Your task to perform on an android device: Open ESPN.com Image 0: 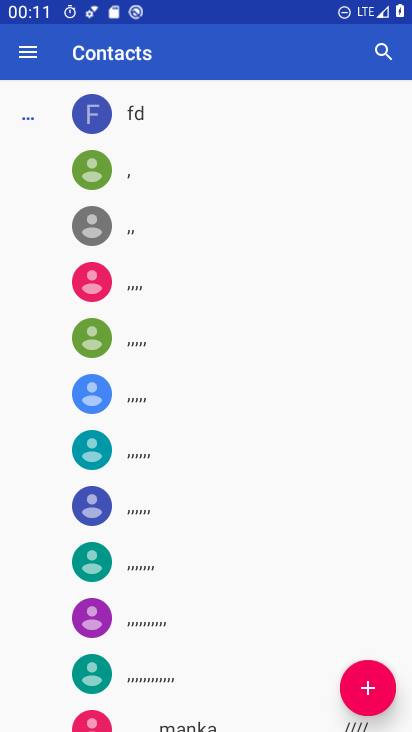
Step 0: press home button
Your task to perform on an android device: Open ESPN.com Image 1: 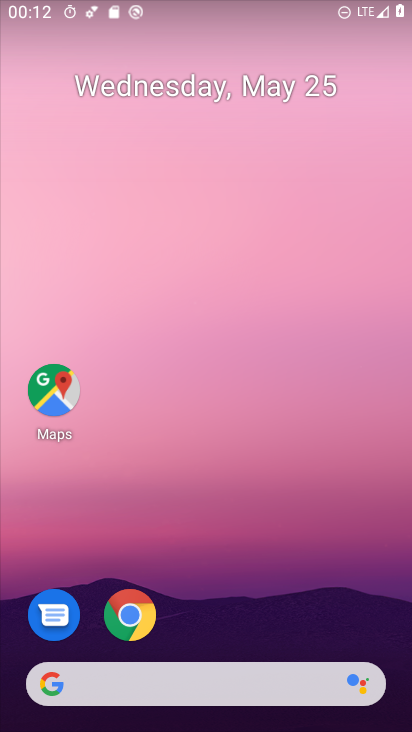
Step 1: drag from (242, 698) to (258, 67)
Your task to perform on an android device: Open ESPN.com Image 2: 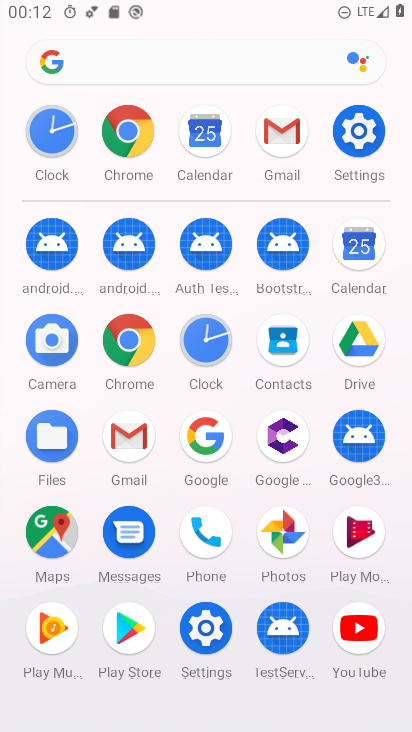
Step 2: click (138, 126)
Your task to perform on an android device: Open ESPN.com Image 3: 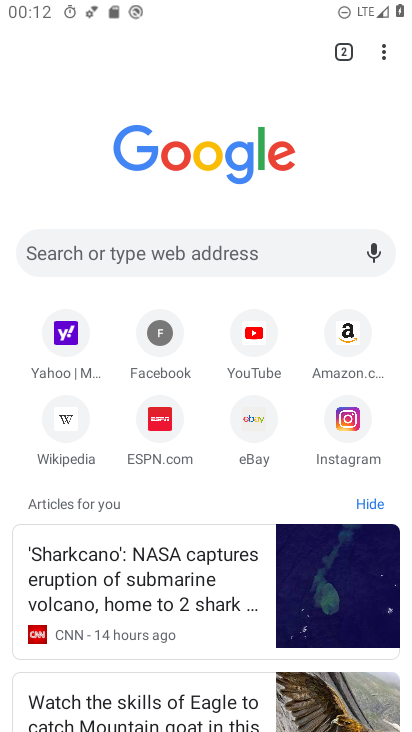
Step 3: click (156, 423)
Your task to perform on an android device: Open ESPN.com Image 4: 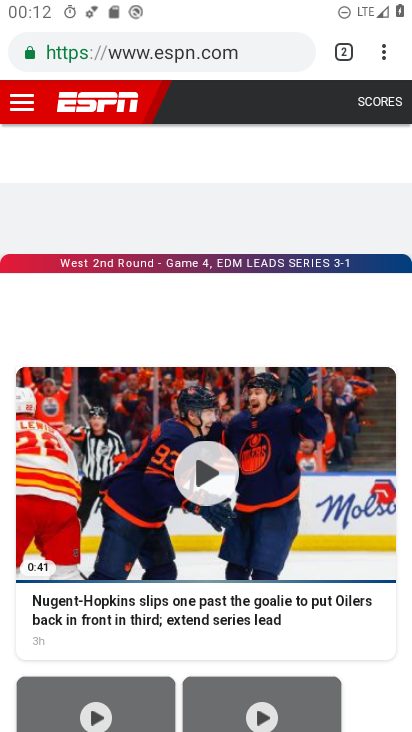
Step 4: task complete